Your task to perform on an android device: open a bookmark in the chrome app Image 0: 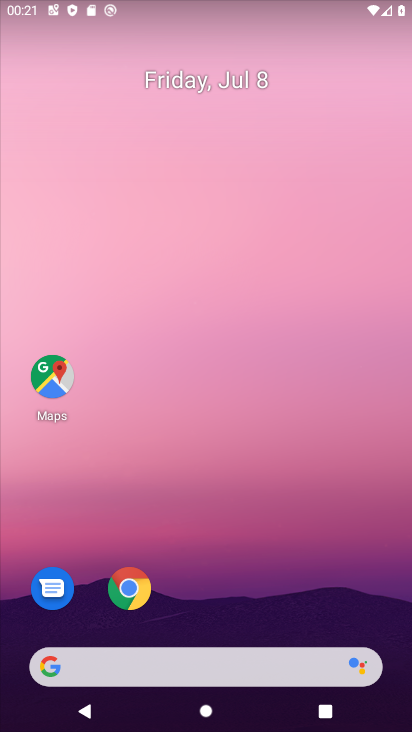
Step 0: drag from (172, 611) to (242, 139)
Your task to perform on an android device: open a bookmark in the chrome app Image 1: 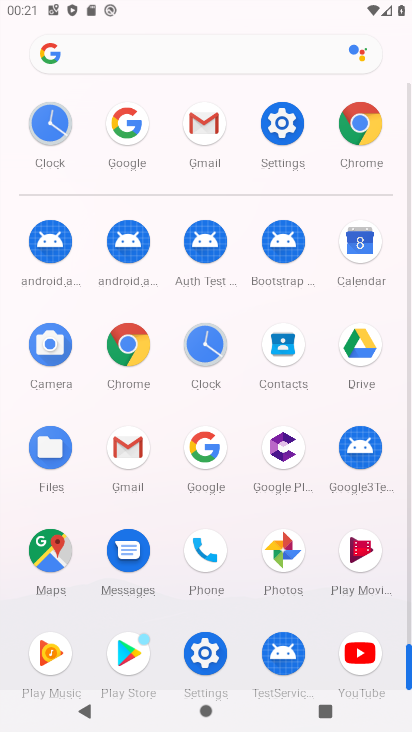
Step 1: click (129, 339)
Your task to perform on an android device: open a bookmark in the chrome app Image 2: 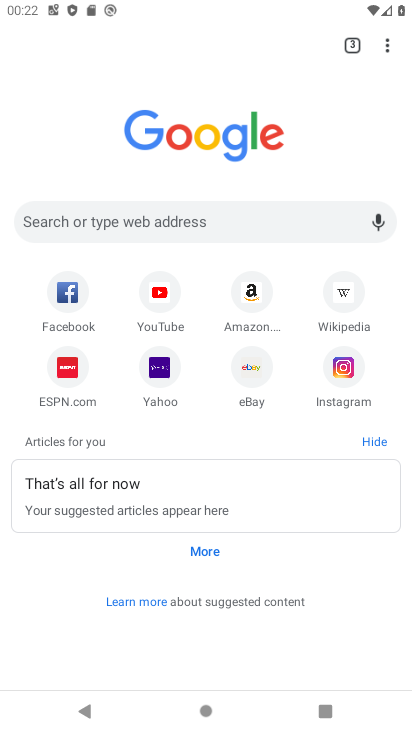
Step 2: click (383, 40)
Your task to perform on an android device: open a bookmark in the chrome app Image 3: 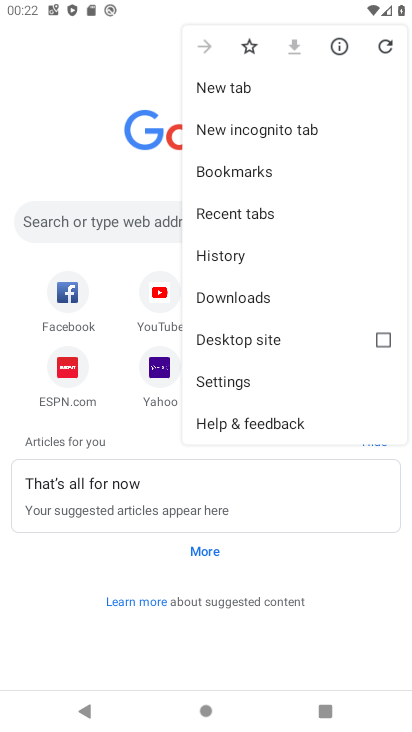
Step 3: click (266, 162)
Your task to perform on an android device: open a bookmark in the chrome app Image 4: 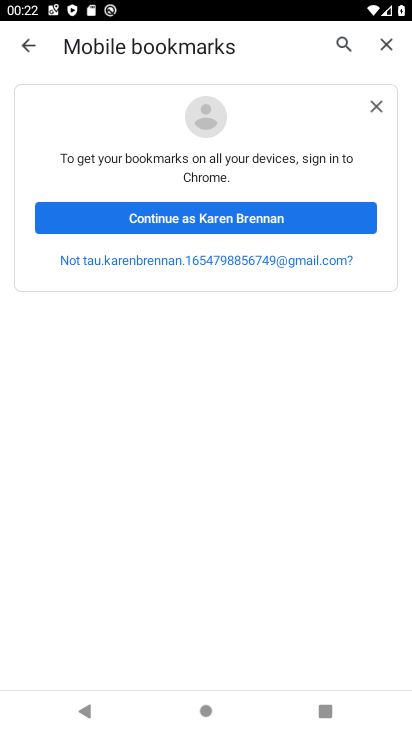
Step 4: task complete